Your task to perform on an android device: Check the news Image 0: 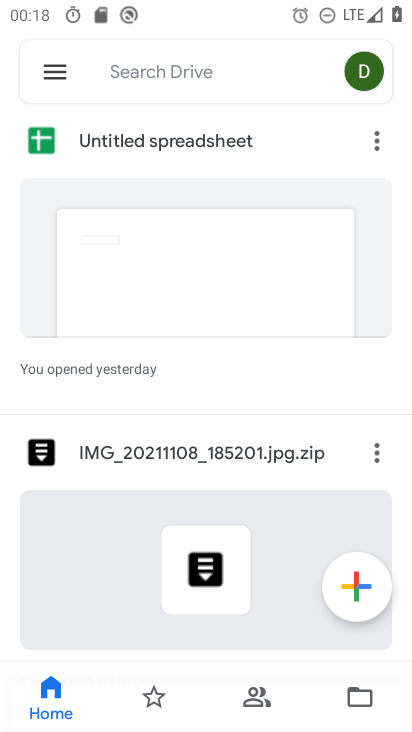
Step 0: press home button
Your task to perform on an android device: Check the news Image 1: 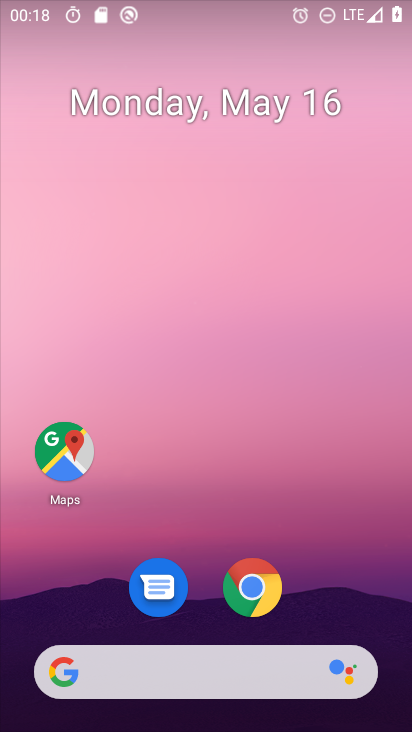
Step 1: drag from (215, 612) to (209, 196)
Your task to perform on an android device: Check the news Image 2: 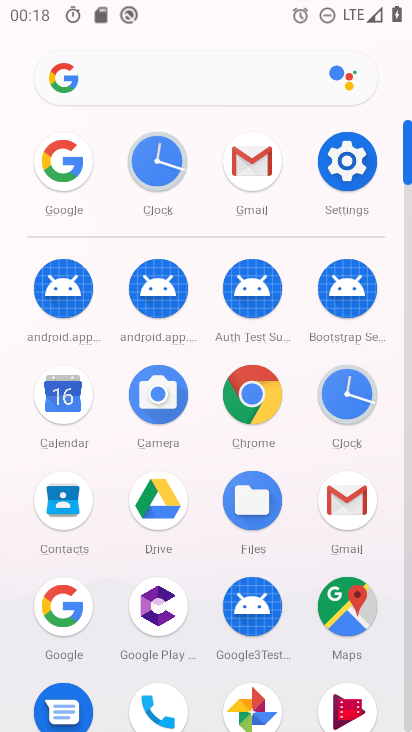
Step 2: click (86, 163)
Your task to perform on an android device: Check the news Image 3: 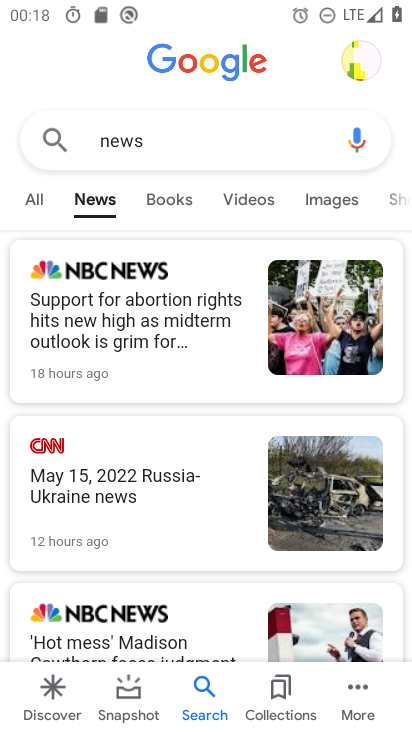
Step 3: click (210, 137)
Your task to perform on an android device: Check the news Image 4: 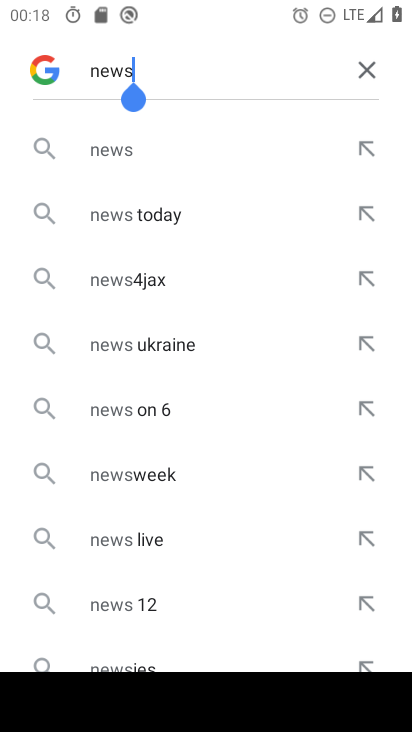
Step 4: click (348, 72)
Your task to perform on an android device: Check the news Image 5: 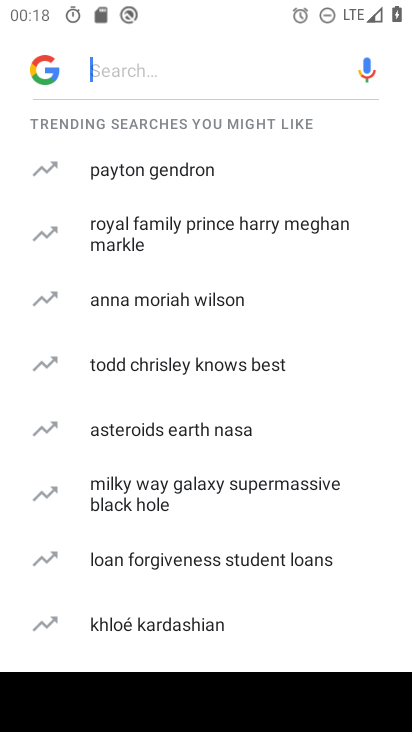
Step 5: type "news"
Your task to perform on an android device: Check the news Image 6: 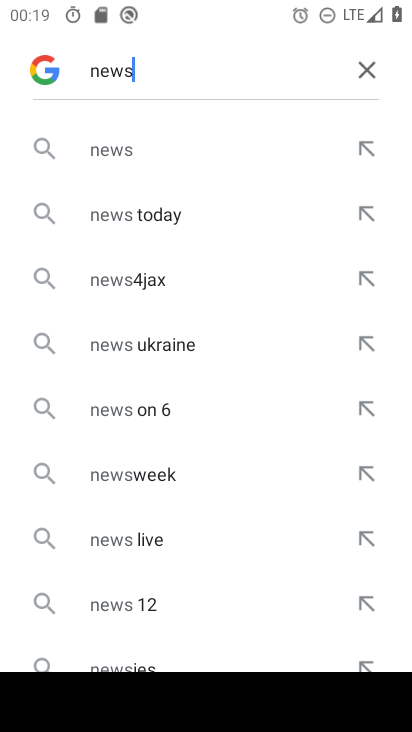
Step 6: click (173, 153)
Your task to perform on an android device: Check the news Image 7: 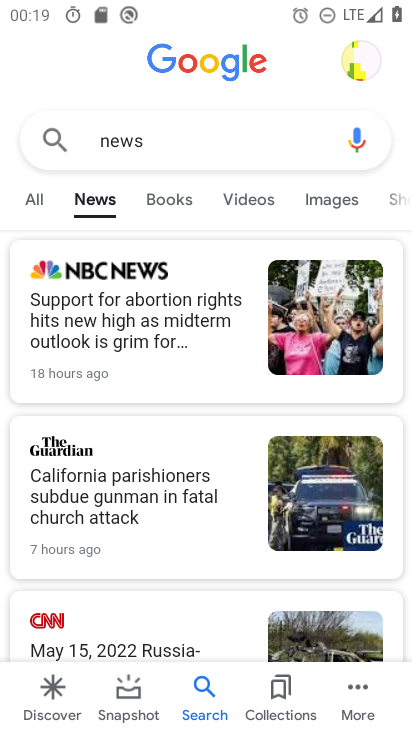
Step 7: task complete